Your task to perform on an android device: clear all cookies in the chrome app Image 0: 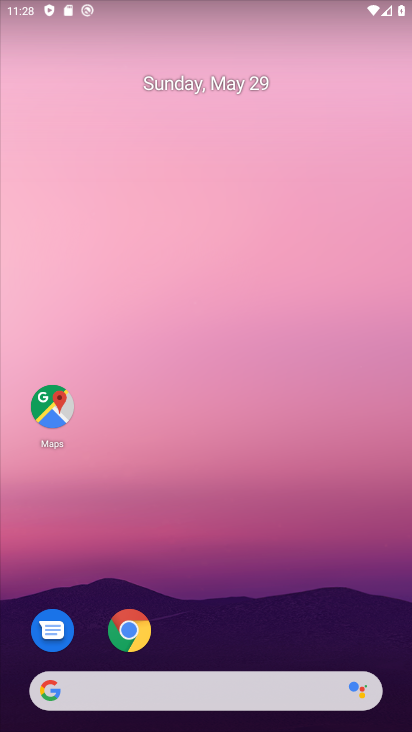
Step 0: click (128, 642)
Your task to perform on an android device: clear all cookies in the chrome app Image 1: 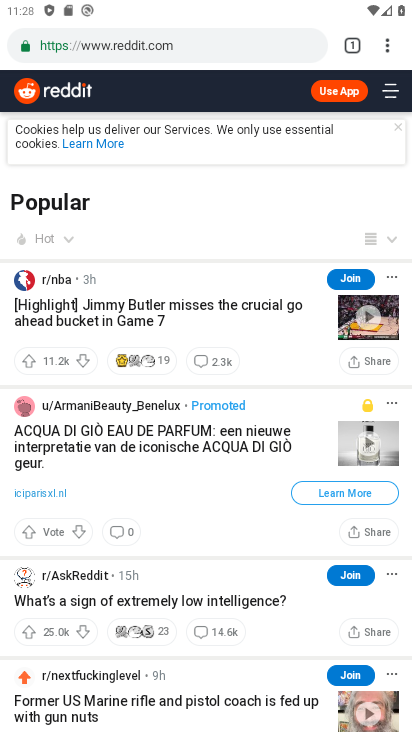
Step 1: click (387, 55)
Your task to perform on an android device: clear all cookies in the chrome app Image 2: 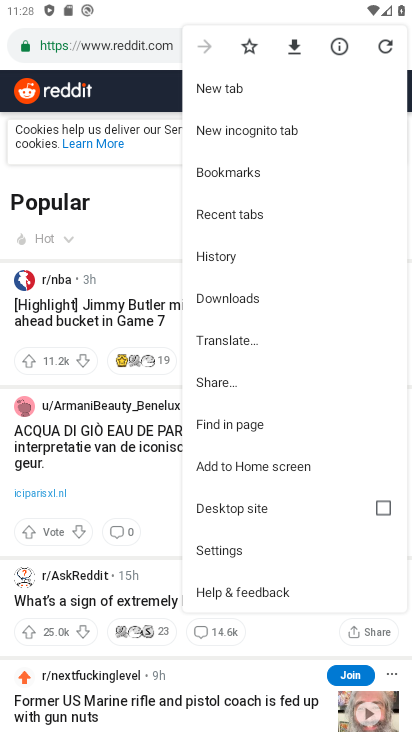
Step 2: click (228, 550)
Your task to perform on an android device: clear all cookies in the chrome app Image 3: 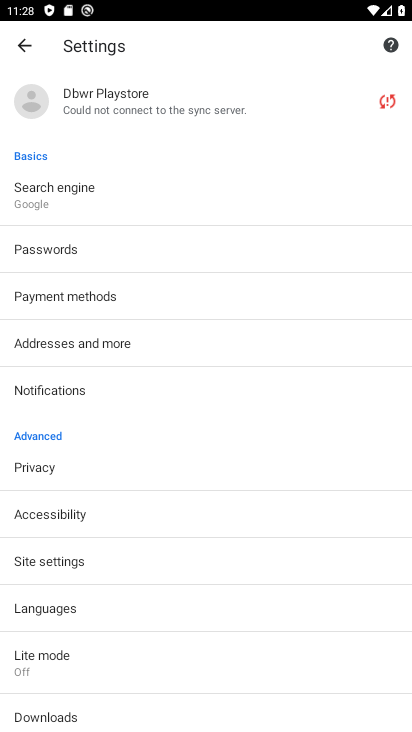
Step 3: click (37, 470)
Your task to perform on an android device: clear all cookies in the chrome app Image 4: 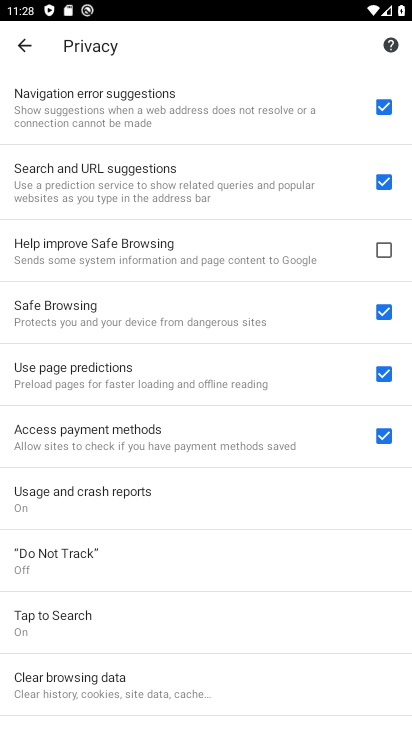
Step 4: click (153, 691)
Your task to perform on an android device: clear all cookies in the chrome app Image 5: 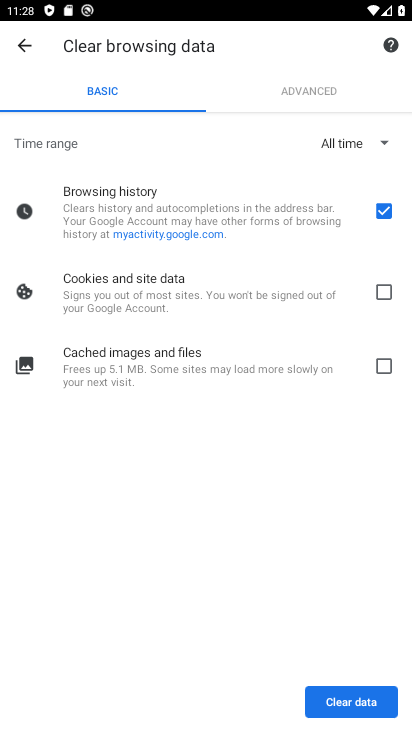
Step 5: click (389, 293)
Your task to perform on an android device: clear all cookies in the chrome app Image 6: 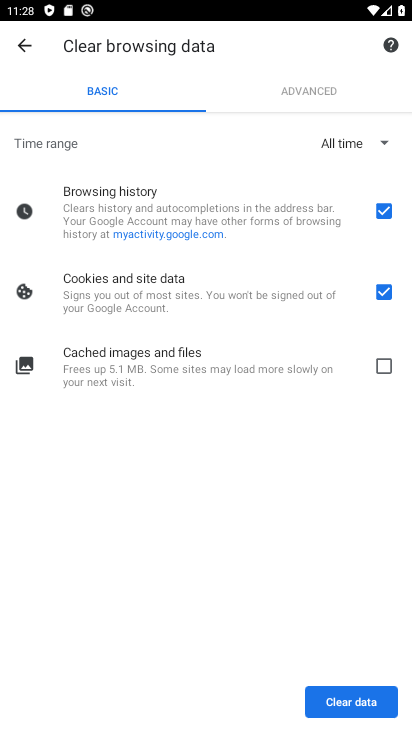
Step 6: click (381, 213)
Your task to perform on an android device: clear all cookies in the chrome app Image 7: 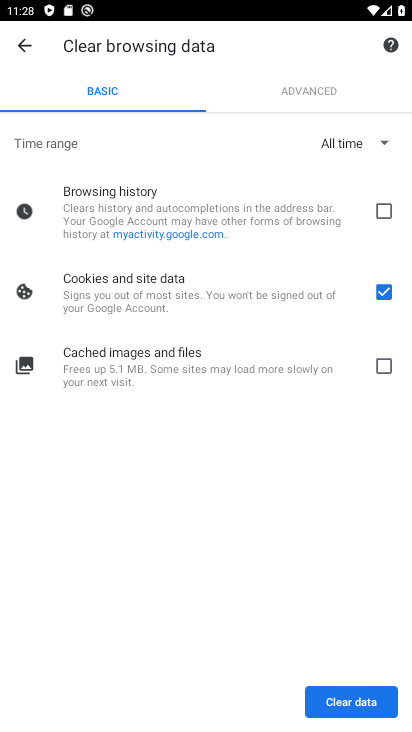
Step 7: click (356, 707)
Your task to perform on an android device: clear all cookies in the chrome app Image 8: 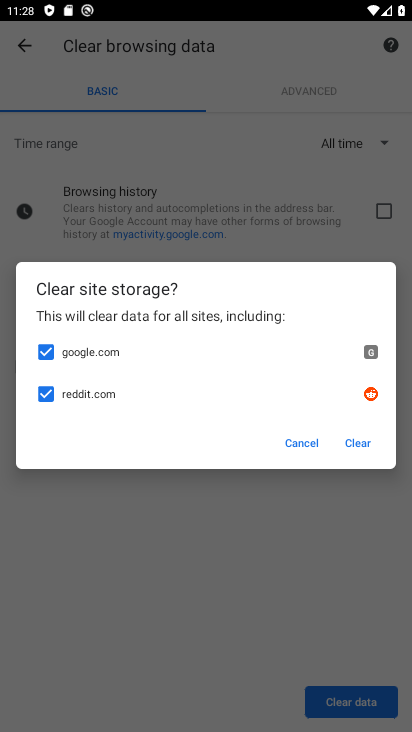
Step 8: click (362, 450)
Your task to perform on an android device: clear all cookies in the chrome app Image 9: 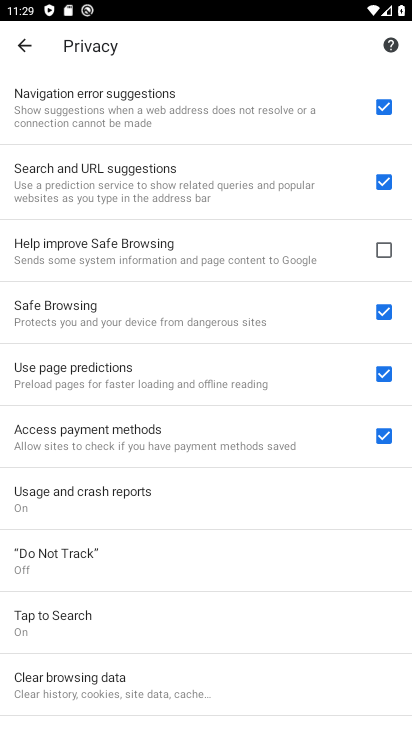
Step 9: task complete